Your task to perform on an android device: Add "sony triple a" to the cart on costco, then select checkout. Image 0: 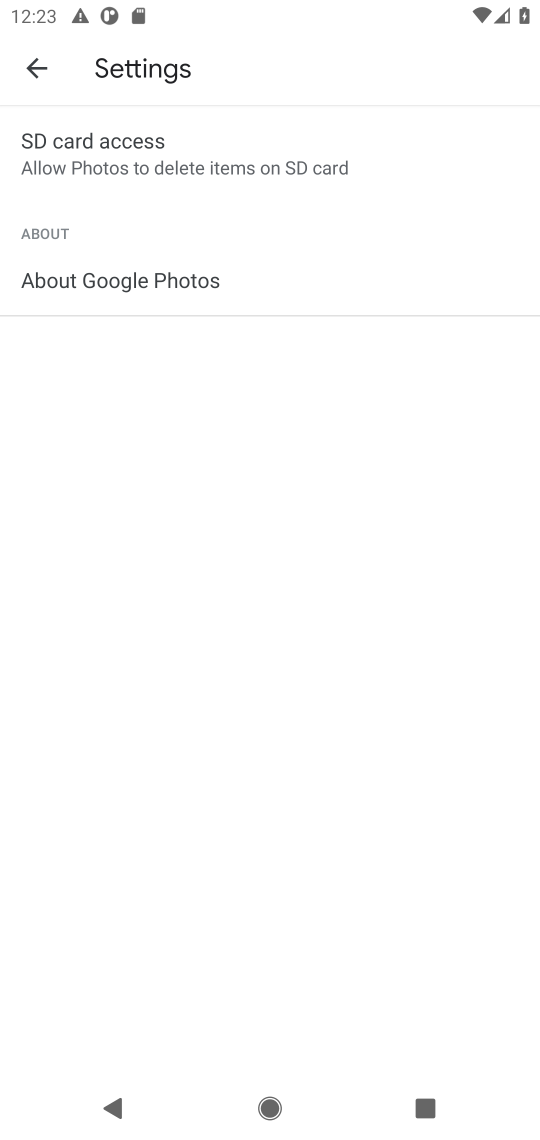
Step 0: press home button
Your task to perform on an android device: Add "sony triple a" to the cart on costco, then select checkout. Image 1: 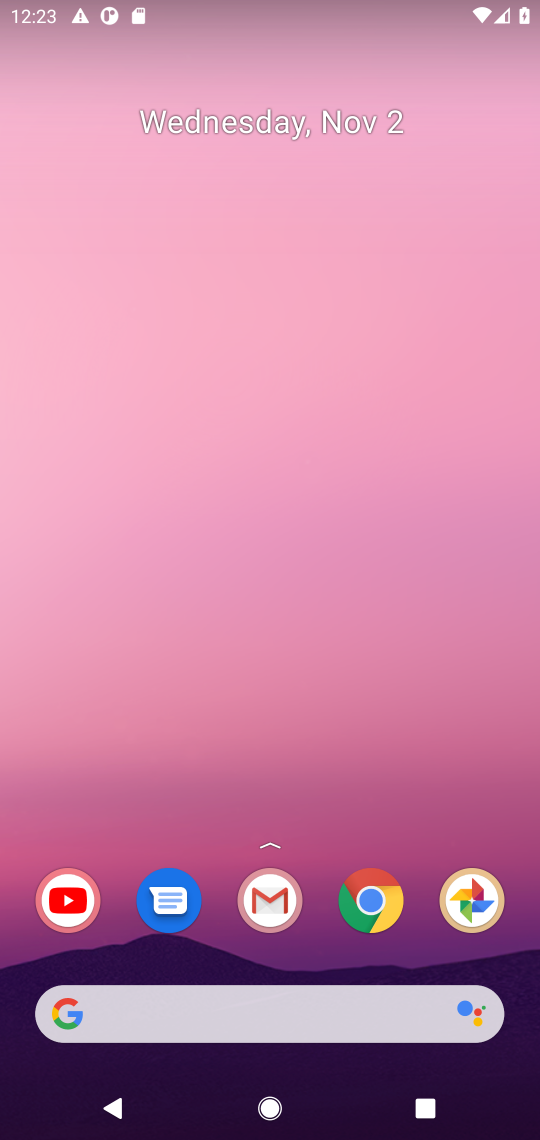
Step 1: click (374, 893)
Your task to perform on an android device: Add "sony triple a" to the cart on costco, then select checkout. Image 2: 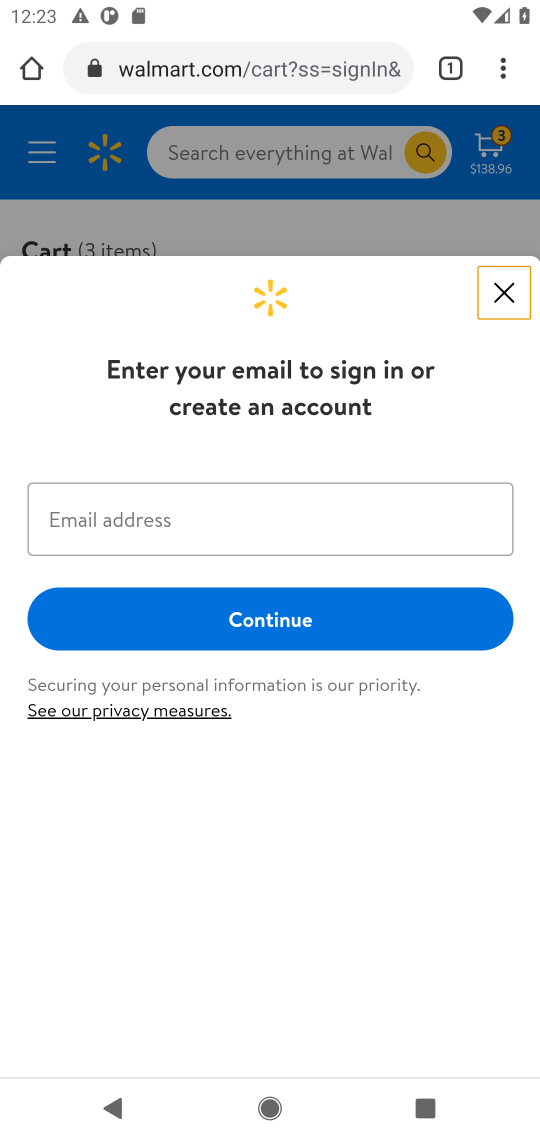
Step 2: click (265, 73)
Your task to perform on an android device: Add "sony triple a" to the cart on costco, then select checkout. Image 3: 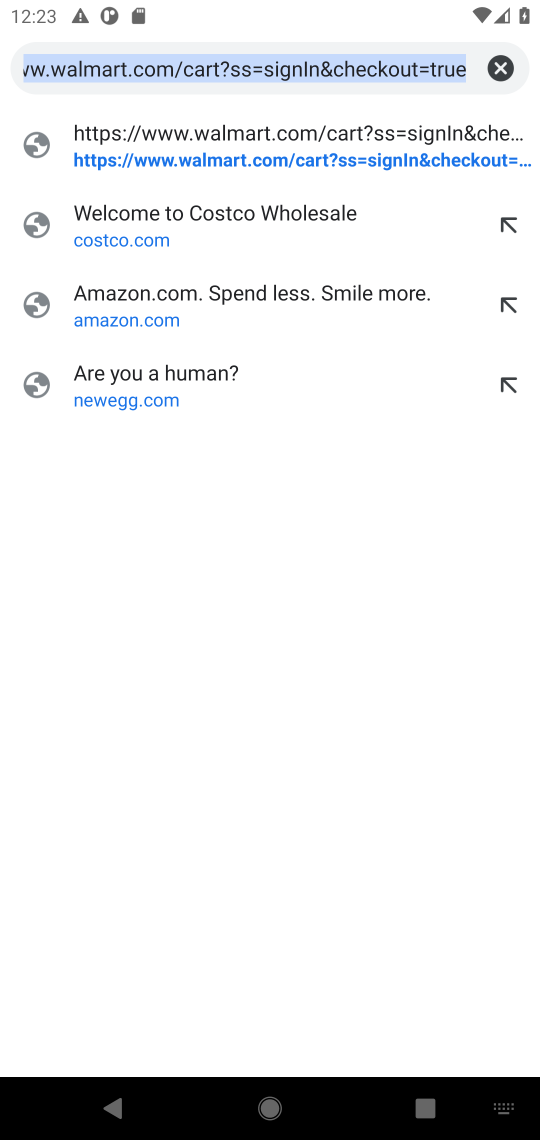
Step 3: click (129, 216)
Your task to perform on an android device: Add "sony triple a" to the cart on costco, then select checkout. Image 4: 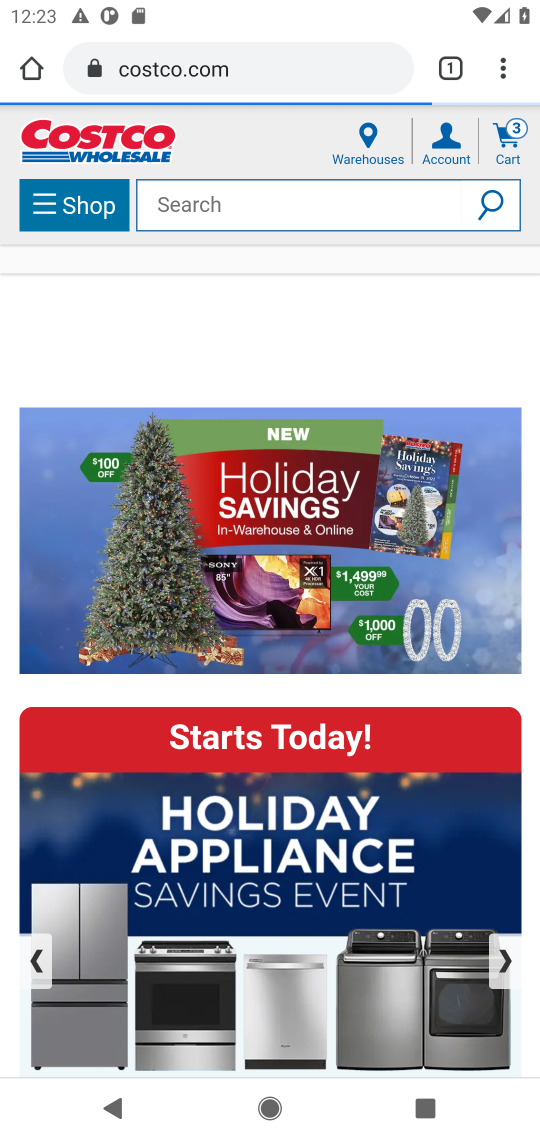
Step 4: click (170, 198)
Your task to perform on an android device: Add "sony triple a" to the cart on costco, then select checkout. Image 5: 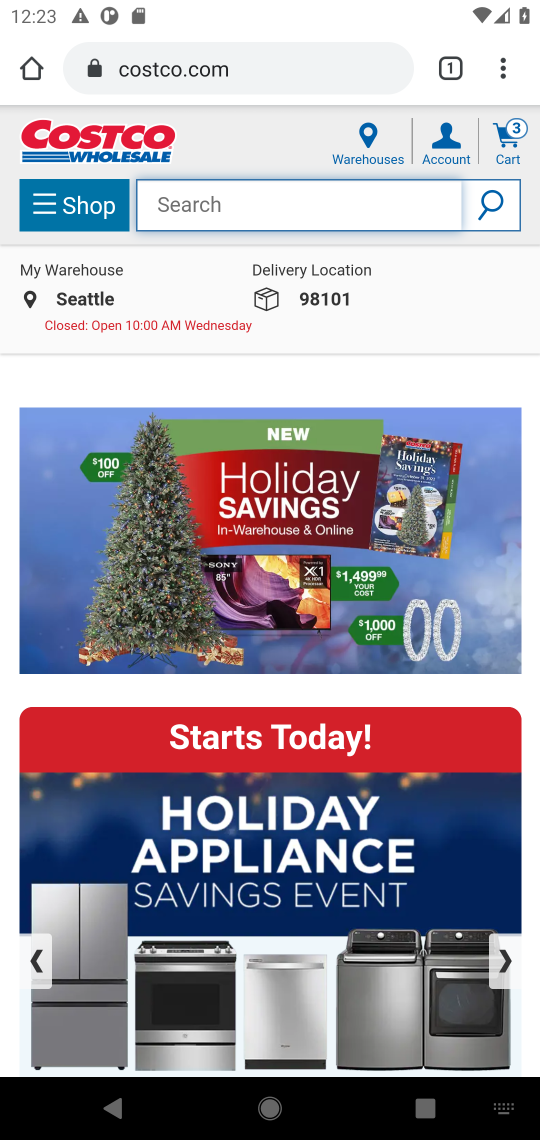
Step 5: type "sony triple a"
Your task to perform on an android device: Add "sony triple a" to the cart on costco, then select checkout. Image 6: 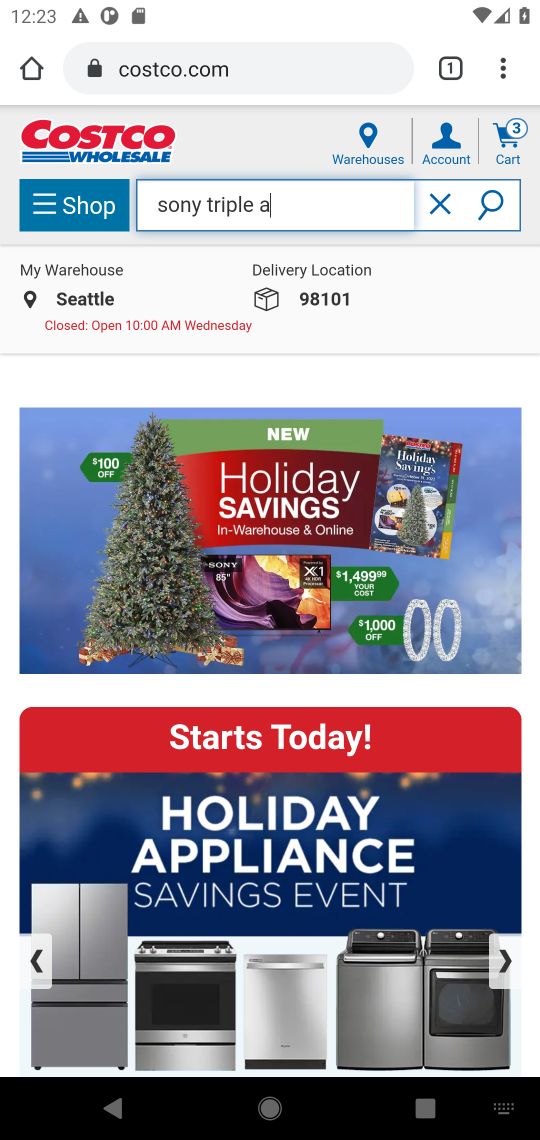
Step 6: type ""
Your task to perform on an android device: Add "sony triple a" to the cart on costco, then select checkout. Image 7: 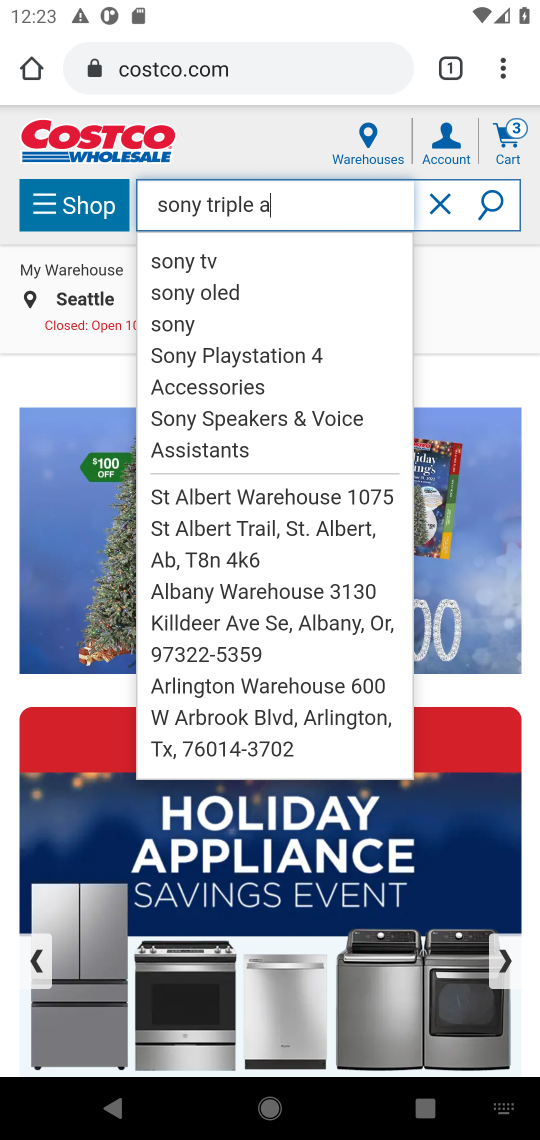
Step 7: click (499, 200)
Your task to perform on an android device: Add "sony triple a" to the cart on costco, then select checkout. Image 8: 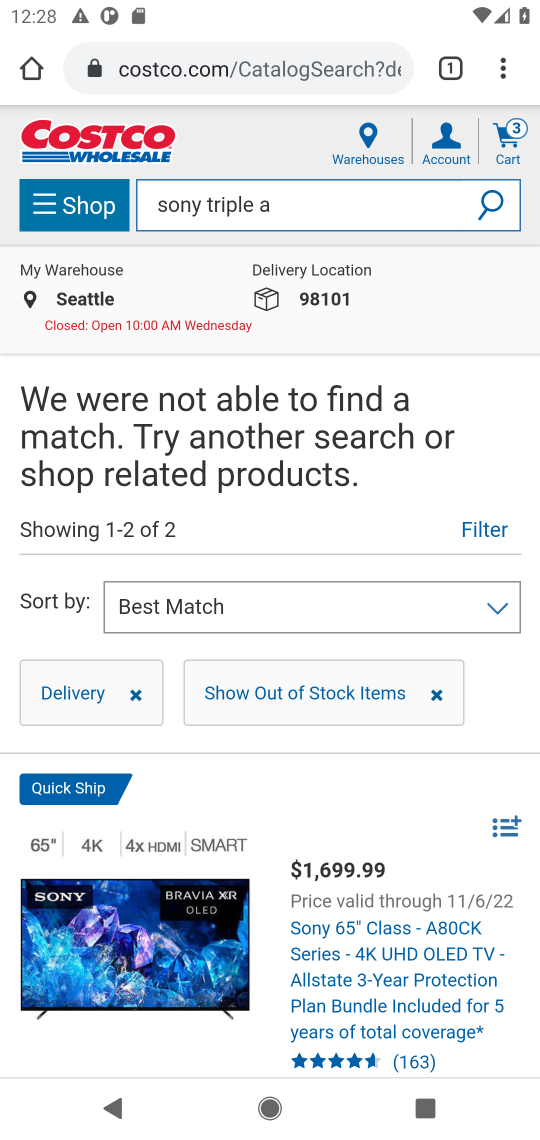
Step 8: task complete